Your task to perform on an android device: Search for pizza restaurants on Maps Image 0: 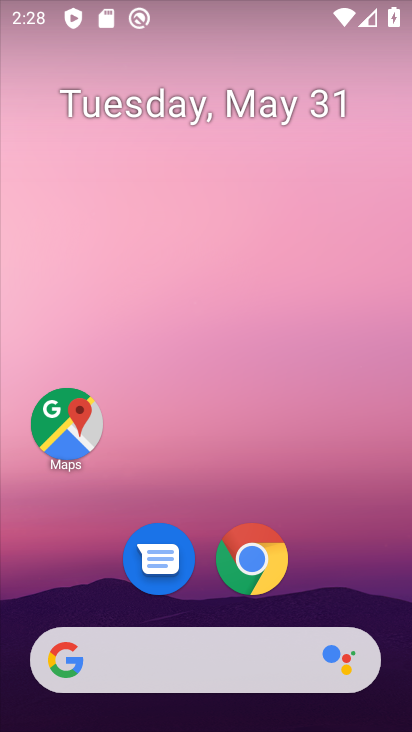
Step 0: drag from (178, 430) to (76, 76)
Your task to perform on an android device: Search for pizza restaurants on Maps Image 1: 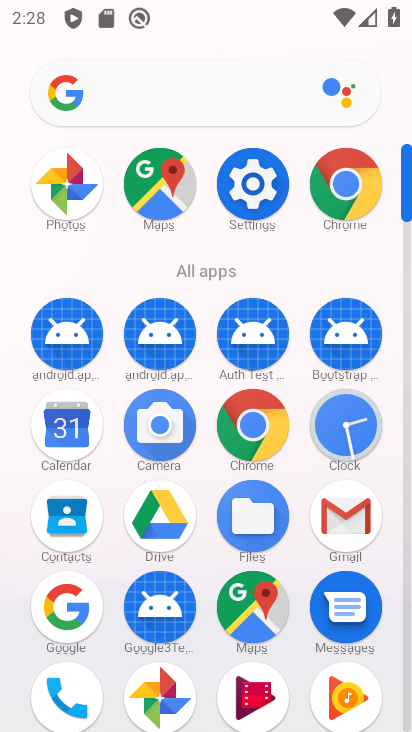
Step 1: click (275, 609)
Your task to perform on an android device: Search for pizza restaurants on Maps Image 2: 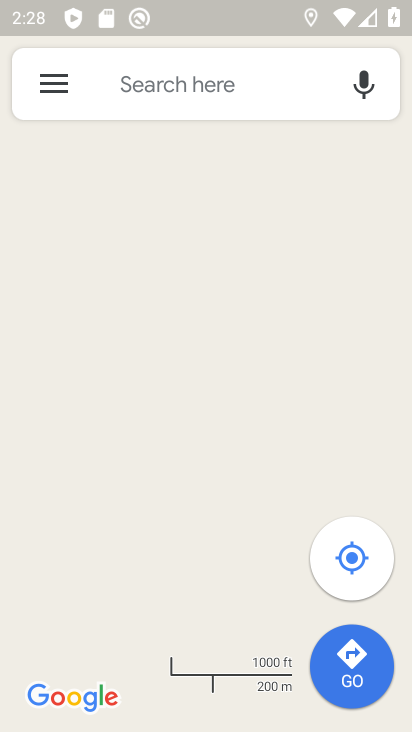
Step 2: click (171, 88)
Your task to perform on an android device: Search for pizza restaurants on Maps Image 3: 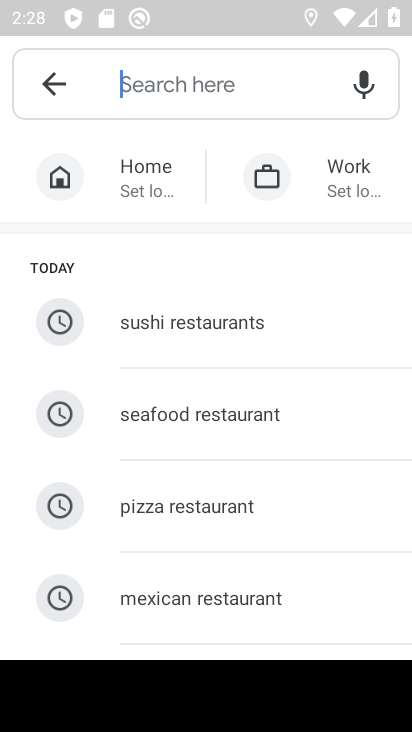
Step 3: click (142, 511)
Your task to perform on an android device: Search for pizza restaurants on Maps Image 4: 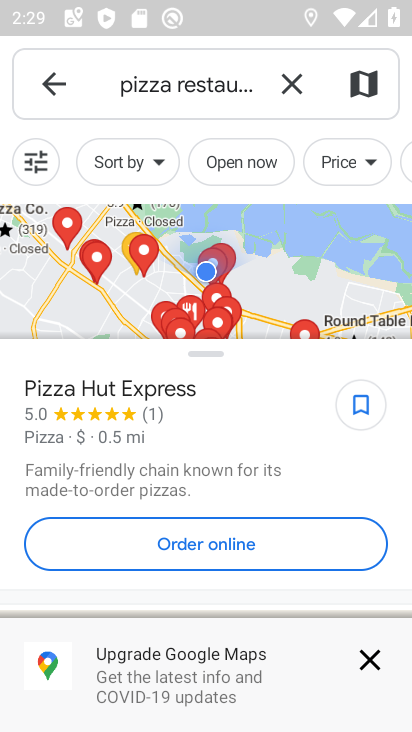
Step 4: task complete